Your task to perform on an android device: turn off improve location accuracy Image 0: 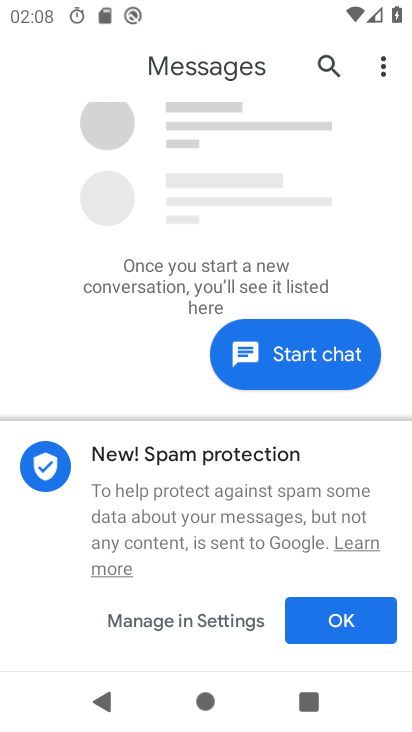
Step 0: press home button
Your task to perform on an android device: turn off improve location accuracy Image 1: 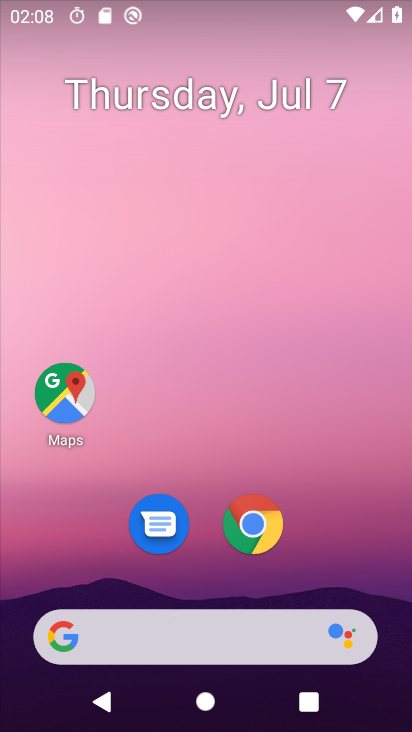
Step 1: drag from (321, 530) to (290, 8)
Your task to perform on an android device: turn off improve location accuracy Image 2: 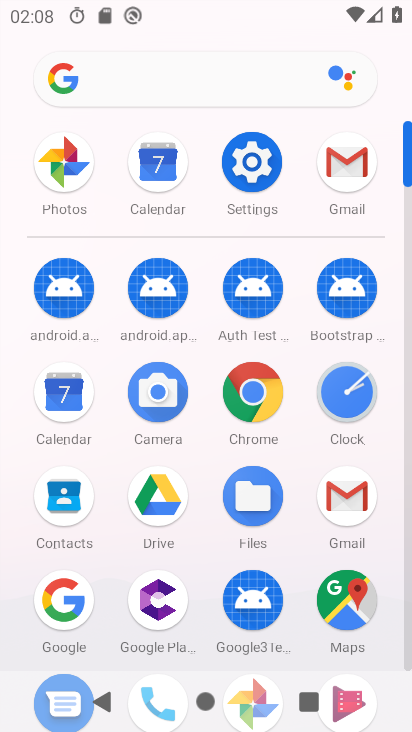
Step 2: click (258, 165)
Your task to perform on an android device: turn off improve location accuracy Image 3: 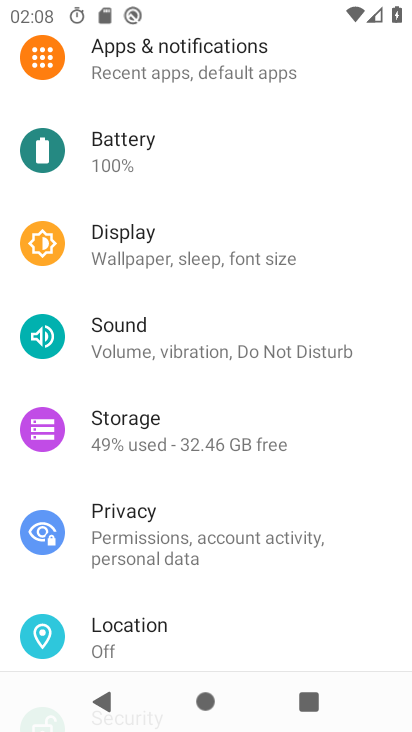
Step 3: drag from (244, 250) to (243, 75)
Your task to perform on an android device: turn off improve location accuracy Image 4: 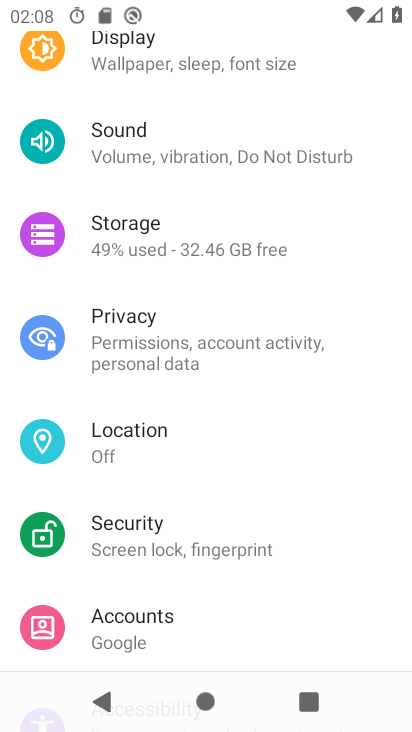
Step 4: click (149, 449)
Your task to perform on an android device: turn off improve location accuracy Image 5: 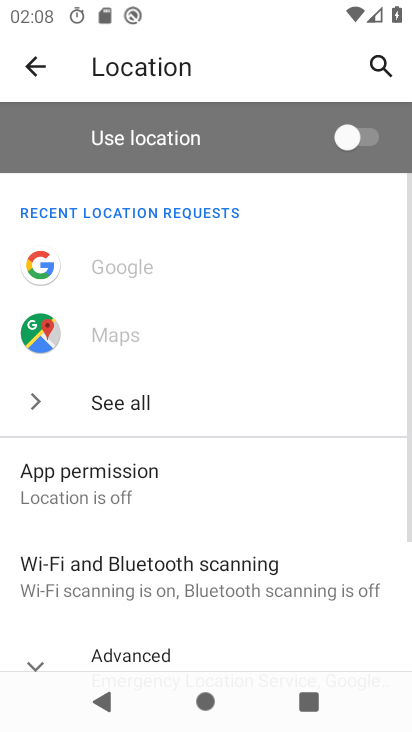
Step 5: drag from (177, 531) to (189, 197)
Your task to perform on an android device: turn off improve location accuracy Image 6: 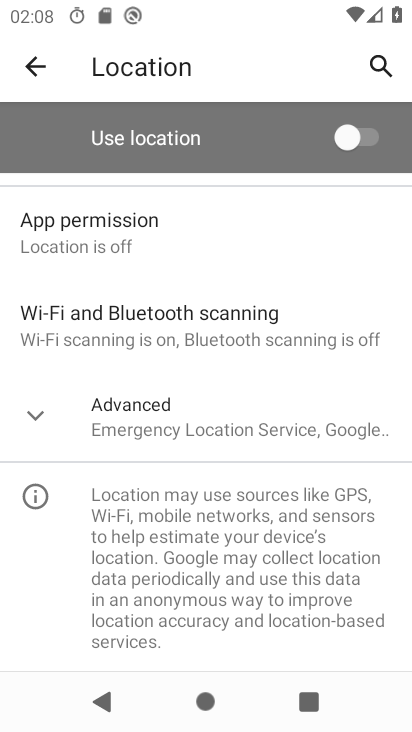
Step 6: click (37, 490)
Your task to perform on an android device: turn off improve location accuracy Image 7: 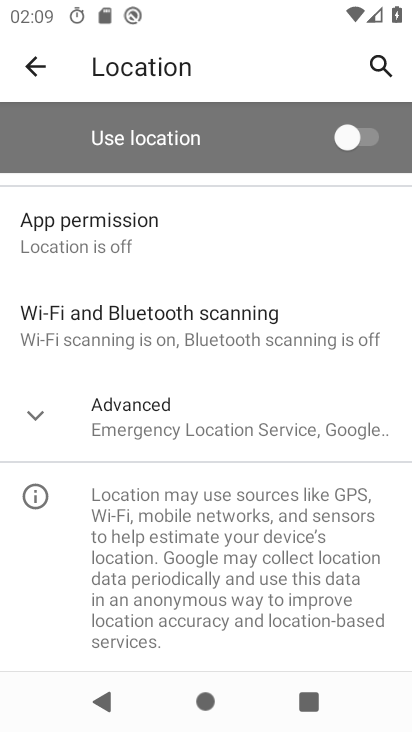
Step 7: click (37, 412)
Your task to perform on an android device: turn off improve location accuracy Image 8: 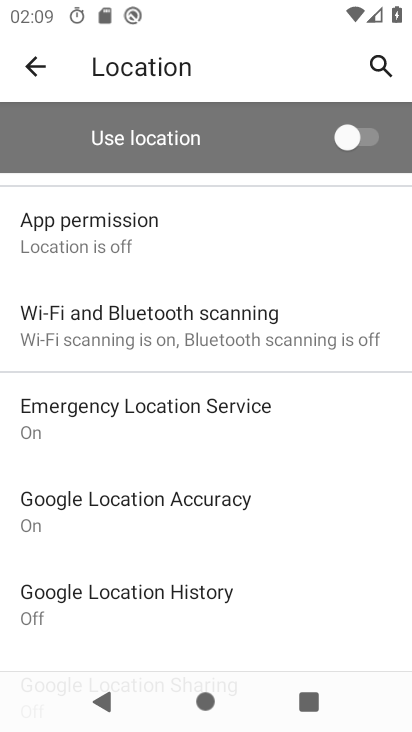
Step 8: click (159, 516)
Your task to perform on an android device: turn off improve location accuracy Image 9: 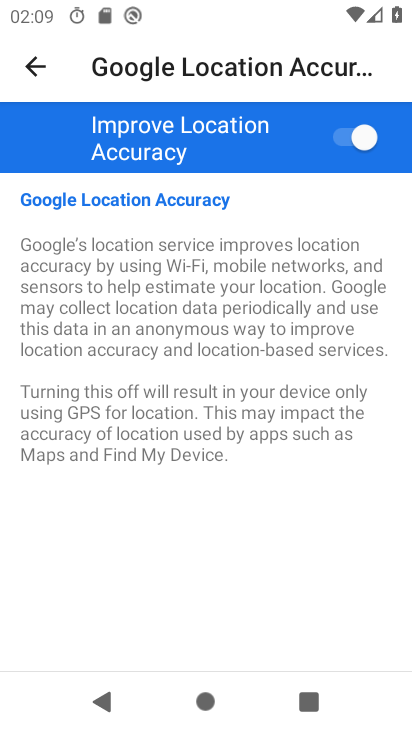
Step 9: click (350, 141)
Your task to perform on an android device: turn off improve location accuracy Image 10: 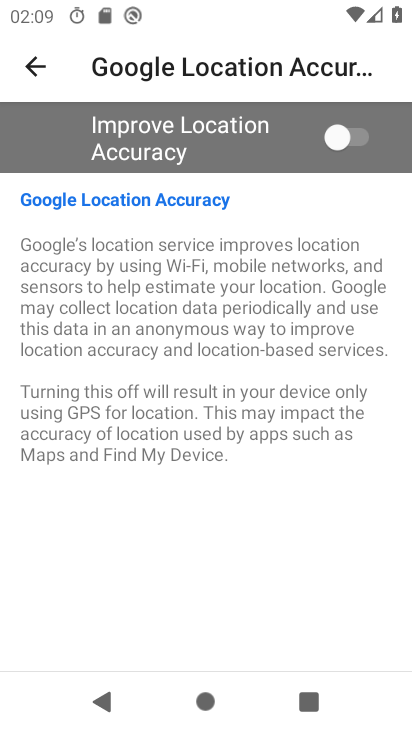
Step 10: task complete